Your task to perform on an android device: turn notification dots off Image 0: 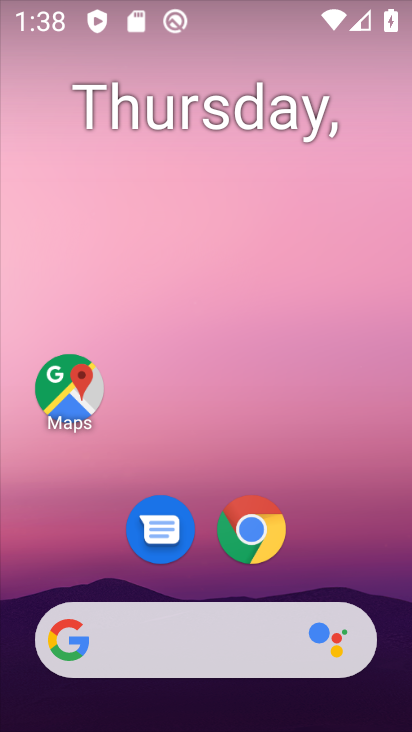
Step 0: drag from (91, 594) to (239, 110)
Your task to perform on an android device: turn notification dots off Image 1: 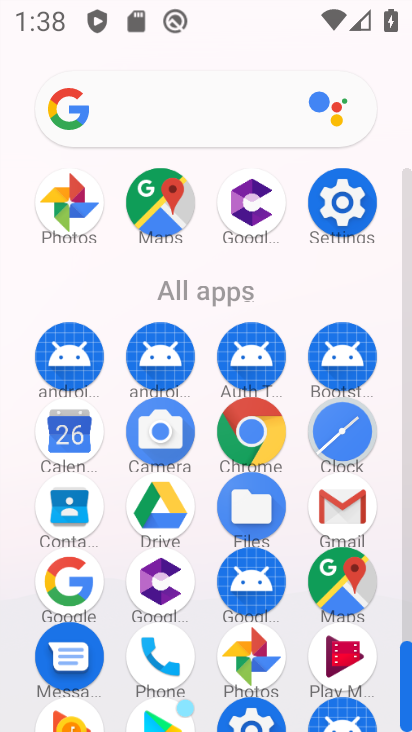
Step 1: click (346, 196)
Your task to perform on an android device: turn notification dots off Image 2: 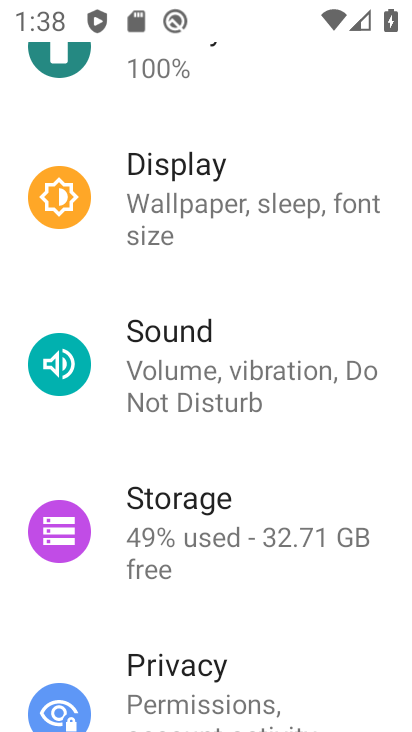
Step 2: drag from (215, 657) to (382, 162)
Your task to perform on an android device: turn notification dots off Image 3: 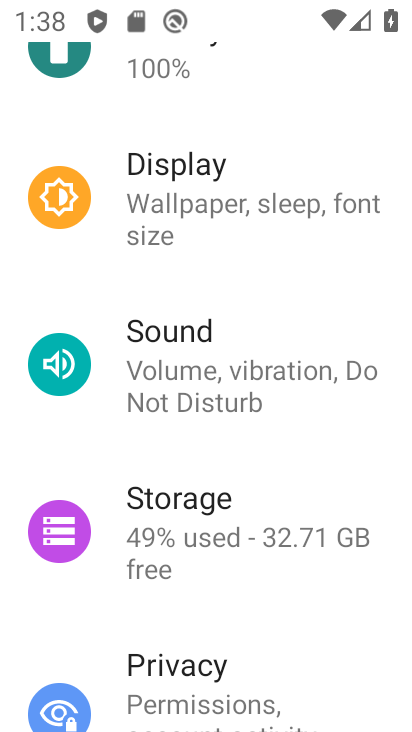
Step 3: drag from (233, 552) to (392, 140)
Your task to perform on an android device: turn notification dots off Image 4: 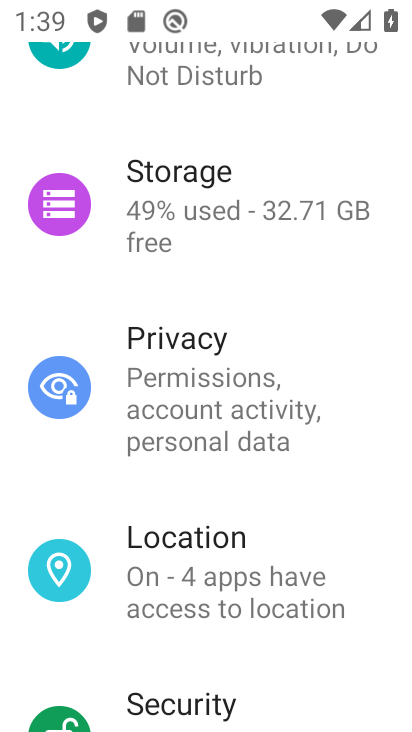
Step 4: drag from (182, 679) to (343, 717)
Your task to perform on an android device: turn notification dots off Image 5: 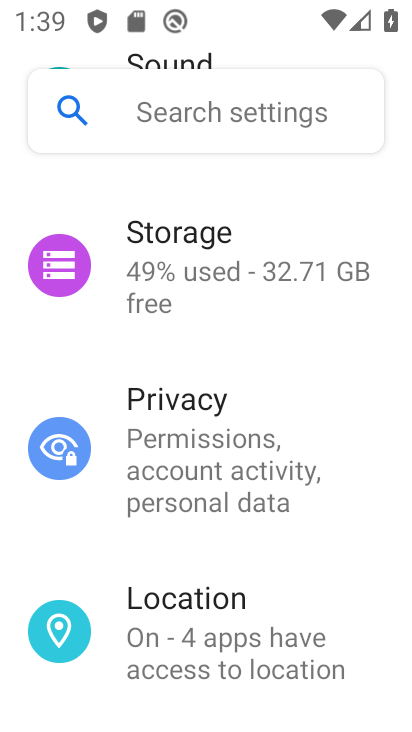
Step 5: drag from (319, 205) to (309, 690)
Your task to perform on an android device: turn notification dots off Image 6: 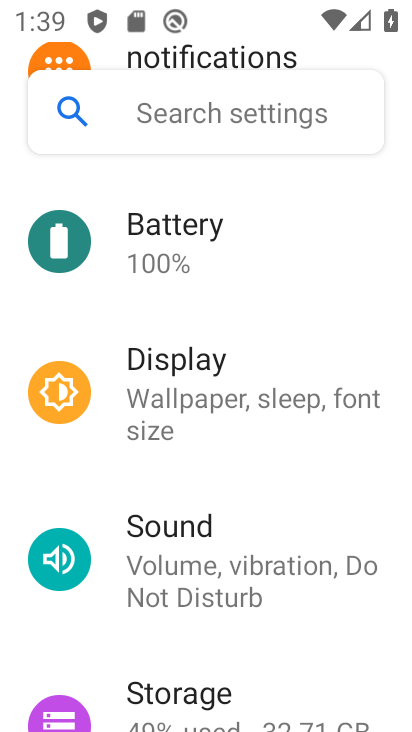
Step 6: drag from (301, 291) to (294, 653)
Your task to perform on an android device: turn notification dots off Image 7: 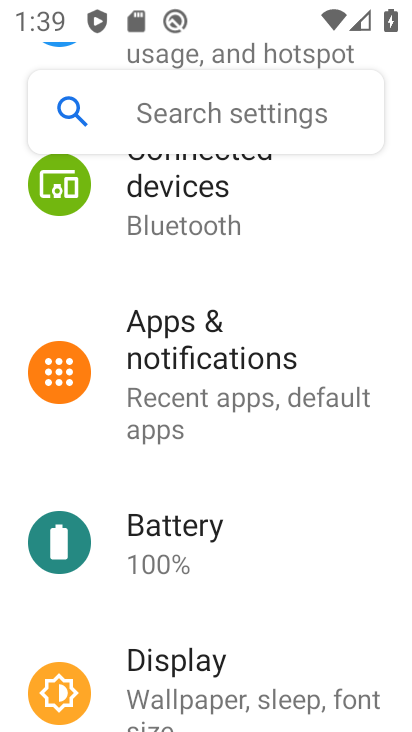
Step 7: click (276, 395)
Your task to perform on an android device: turn notification dots off Image 8: 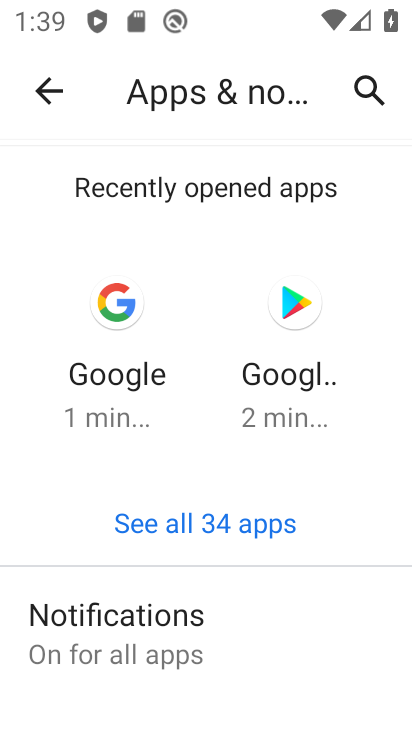
Step 8: drag from (178, 682) to (390, 233)
Your task to perform on an android device: turn notification dots off Image 9: 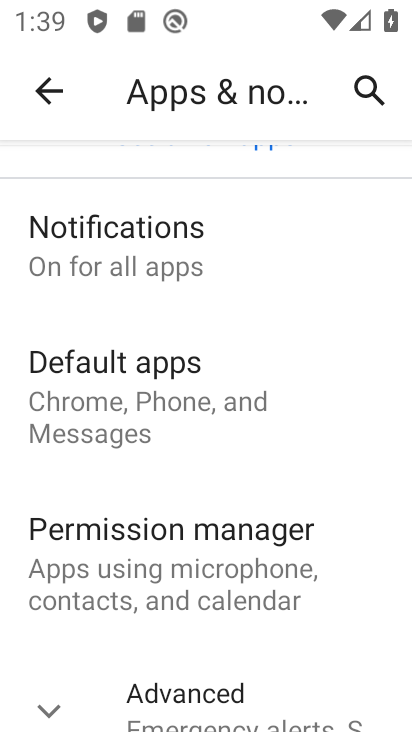
Step 9: drag from (253, 617) to (392, 242)
Your task to perform on an android device: turn notification dots off Image 10: 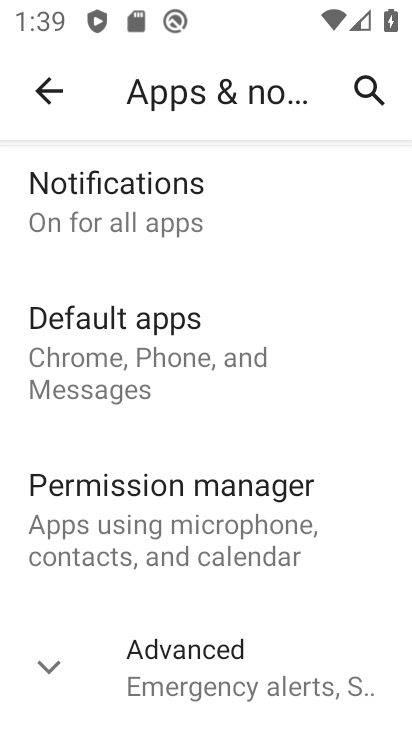
Step 10: click (238, 660)
Your task to perform on an android device: turn notification dots off Image 11: 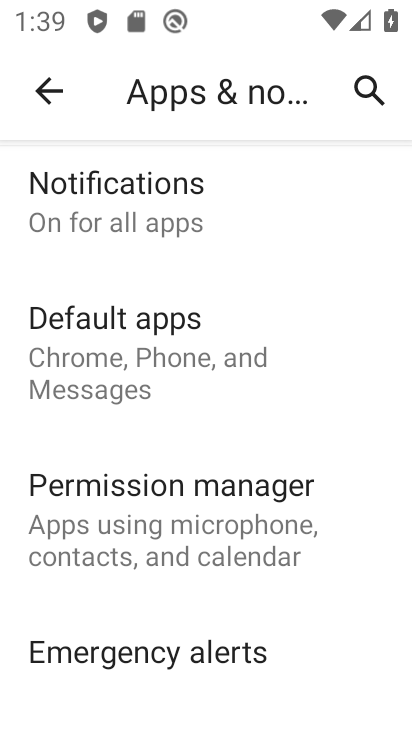
Step 11: drag from (201, 727) to (370, 220)
Your task to perform on an android device: turn notification dots off Image 12: 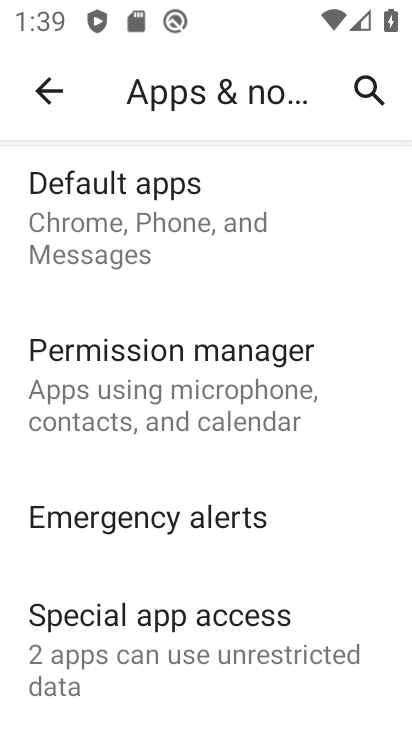
Step 12: drag from (230, 271) to (205, 659)
Your task to perform on an android device: turn notification dots off Image 13: 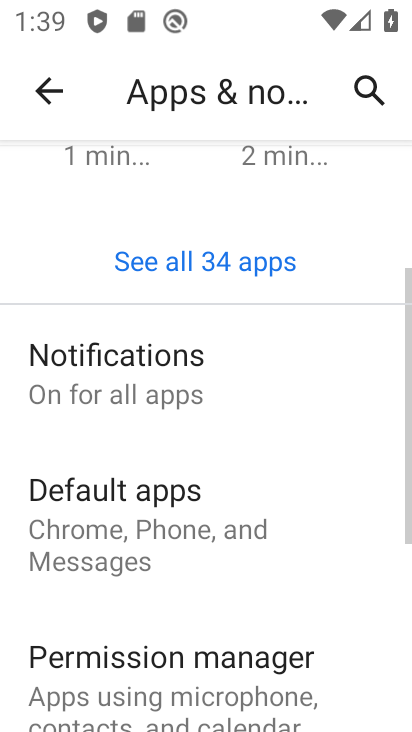
Step 13: click (221, 390)
Your task to perform on an android device: turn notification dots off Image 14: 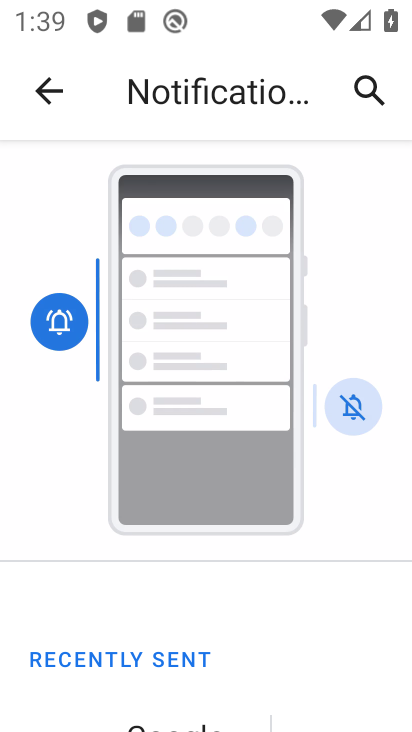
Step 14: drag from (216, 632) to (391, 158)
Your task to perform on an android device: turn notification dots off Image 15: 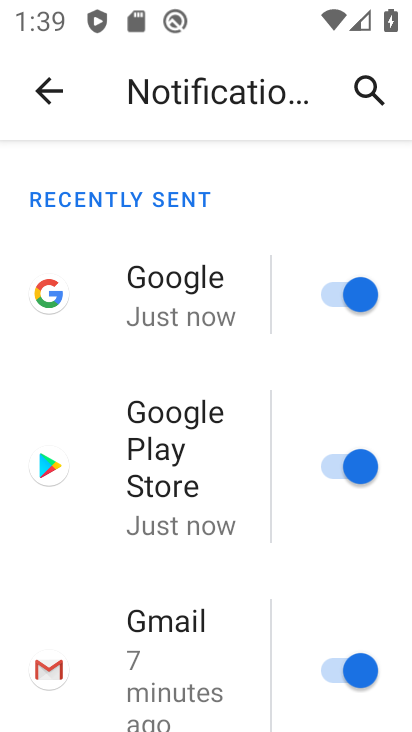
Step 15: drag from (255, 649) to (407, 195)
Your task to perform on an android device: turn notification dots off Image 16: 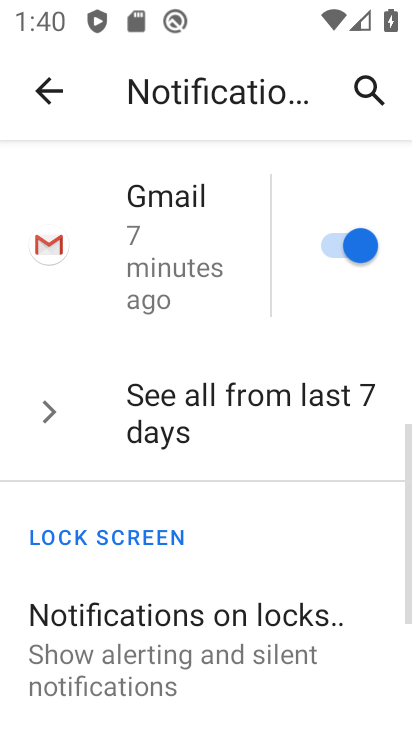
Step 16: drag from (257, 589) to (378, 355)
Your task to perform on an android device: turn notification dots off Image 17: 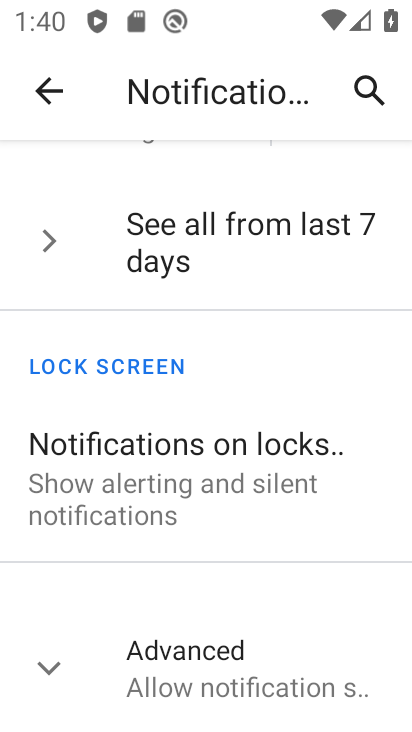
Step 17: click (248, 695)
Your task to perform on an android device: turn notification dots off Image 18: 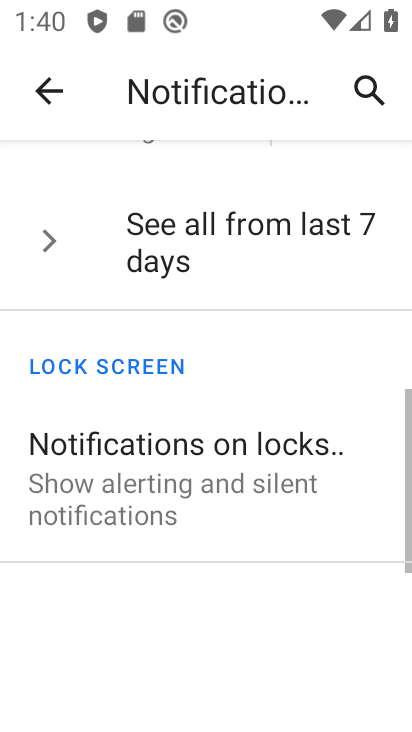
Step 18: drag from (249, 691) to (410, 268)
Your task to perform on an android device: turn notification dots off Image 19: 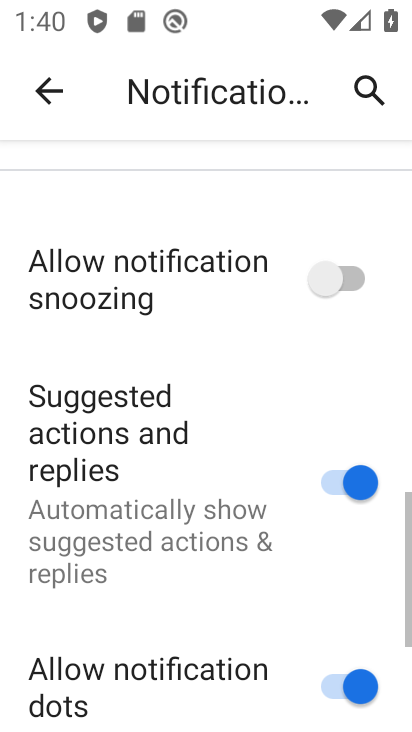
Step 19: drag from (241, 634) to (327, 400)
Your task to perform on an android device: turn notification dots off Image 20: 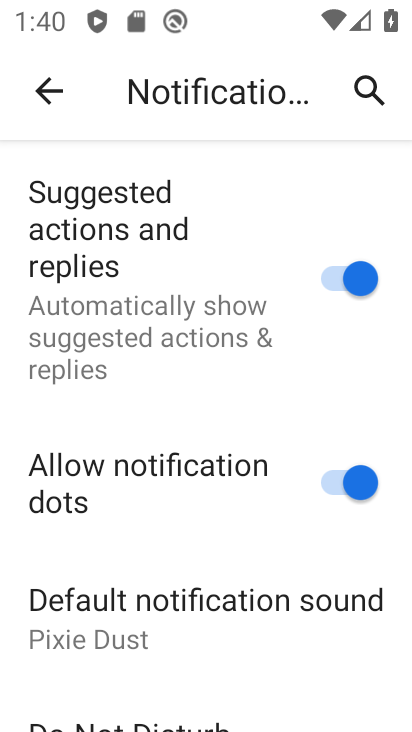
Step 20: click (323, 469)
Your task to perform on an android device: turn notification dots off Image 21: 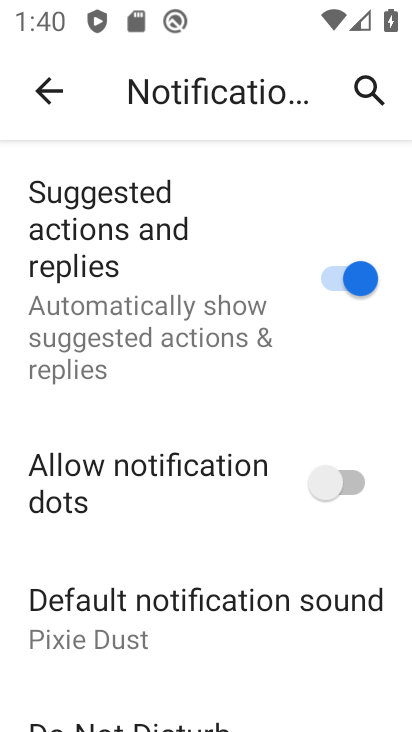
Step 21: task complete